Your task to perform on an android device: create a new album in the google photos Image 0: 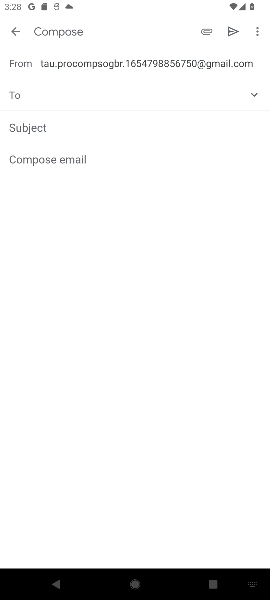
Step 0: click (8, 29)
Your task to perform on an android device: create a new album in the google photos Image 1: 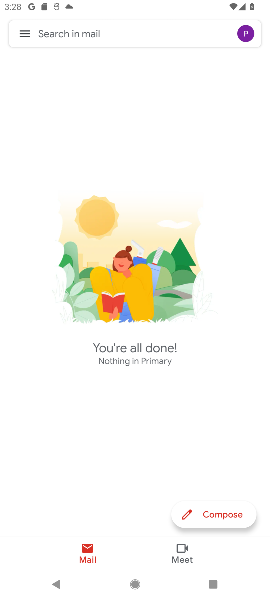
Step 1: press back button
Your task to perform on an android device: create a new album in the google photos Image 2: 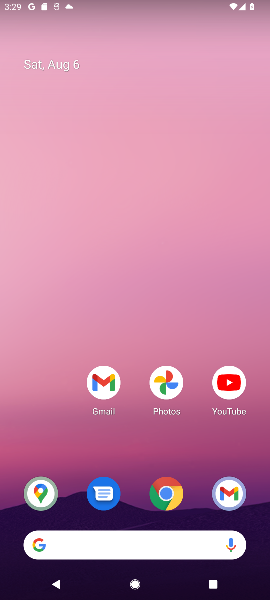
Step 2: drag from (159, 566) to (91, 124)
Your task to perform on an android device: create a new album in the google photos Image 3: 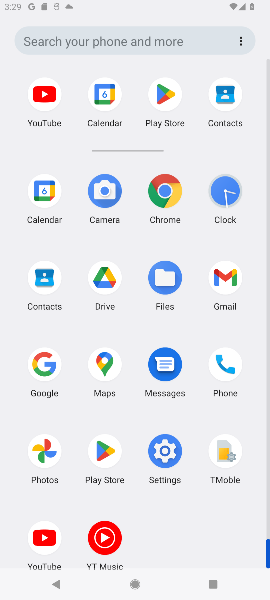
Step 3: drag from (152, 480) to (119, 241)
Your task to perform on an android device: create a new album in the google photos Image 4: 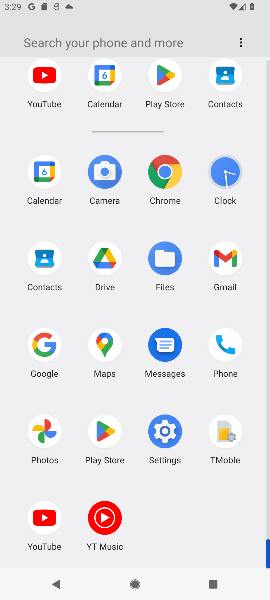
Step 4: click (41, 441)
Your task to perform on an android device: create a new album in the google photos Image 5: 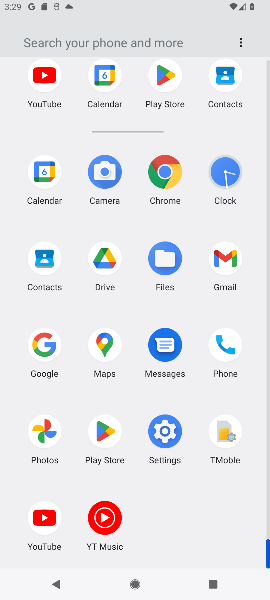
Step 5: click (41, 441)
Your task to perform on an android device: create a new album in the google photos Image 6: 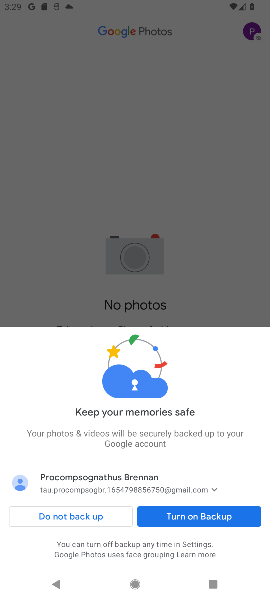
Step 6: click (88, 522)
Your task to perform on an android device: create a new album in the google photos Image 7: 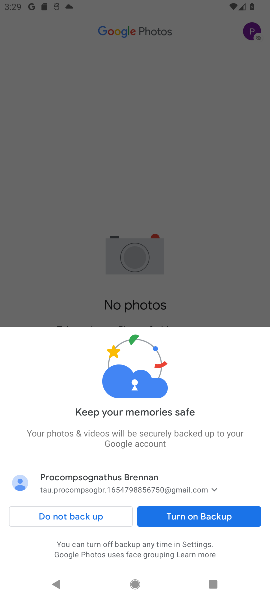
Step 7: click (88, 522)
Your task to perform on an android device: create a new album in the google photos Image 8: 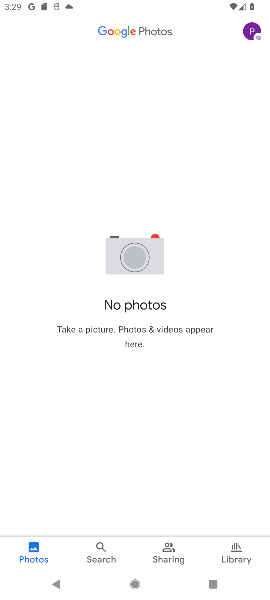
Step 8: click (89, 519)
Your task to perform on an android device: create a new album in the google photos Image 9: 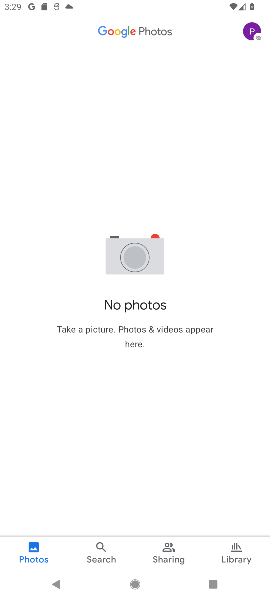
Step 9: click (89, 517)
Your task to perform on an android device: create a new album in the google photos Image 10: 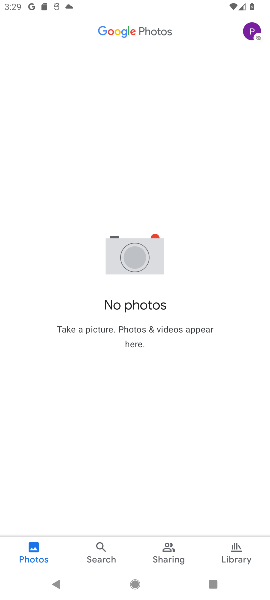
Step 10: click (254, 31)
Your task to perform on an android device: create a new album in the google photos Image 11: 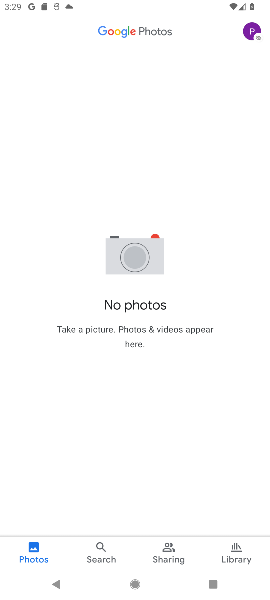
Step 11: click (254, 31)
Your task to perform on an android device: create a new album in the google photos Image 12: 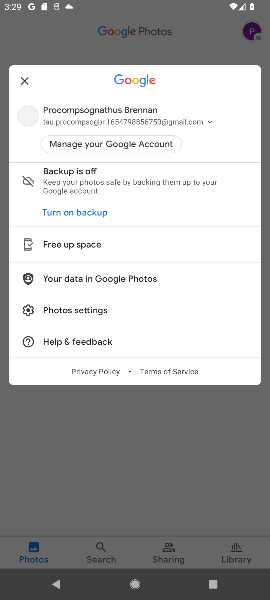
Step 12: click (254, 31)
Your task to perform on an android device: create a new album in the google photos Image 13: 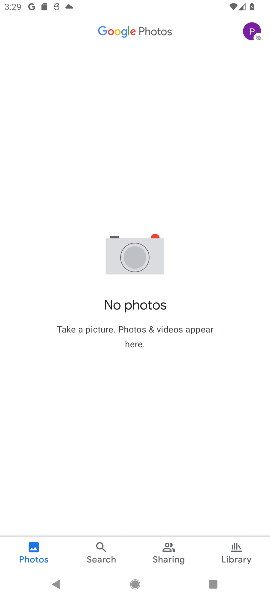
Step 13: drag from (254, 33) to (179, 289)
Your task to perform on an android device: create a new album in the google photos Image 14: 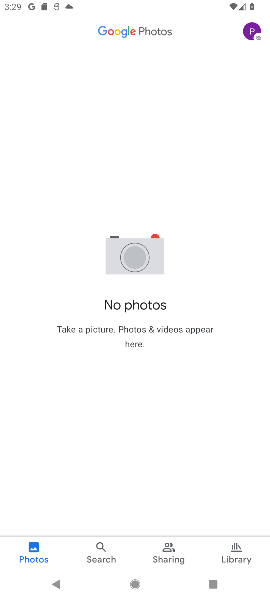
Step 14: drag from (254, 34) to (210, 268)
Your task to perform on an android device: create a new album in the google photos Image 15: 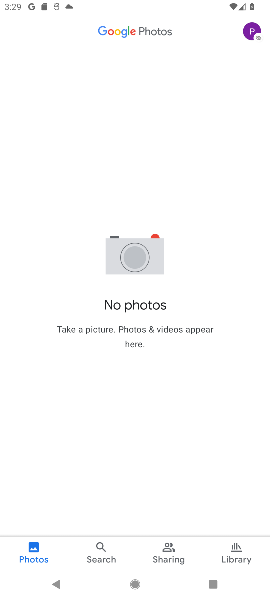
Step 15: click (255, 37)
Your task to perform on an android device: create a new album in the google photos Image 16: 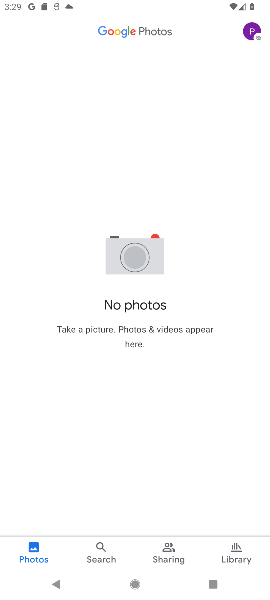
Step 16: click (255, 41)
Your task to perform on an android device: create a new album in the google photos Image 17: 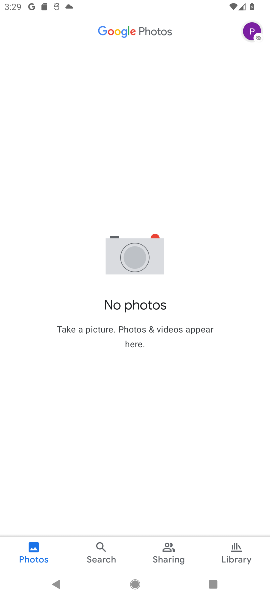
Step 17: click (255, 41)
Your task to perform on an android device: create a new album in the google photos Image 18: 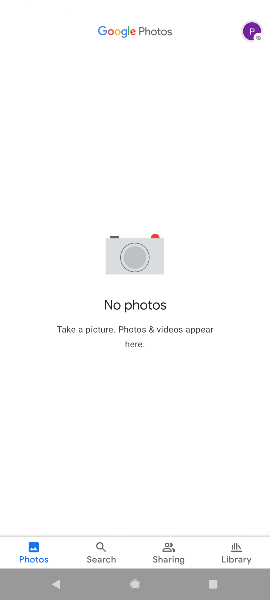
Step 18: click (259, 28)
Your task to perform on an android device: create a new album in the google photos Image 19: 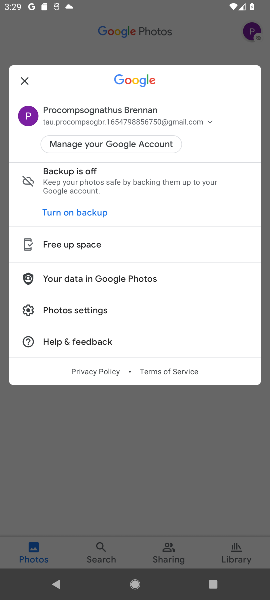
Step 19: click (259, 28)
Your task to perform on an android device: create a new album in the google photos Image 20: 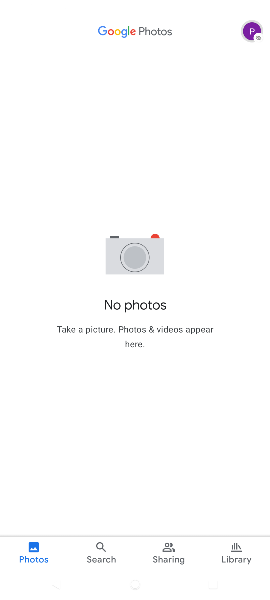
Step 20: click (259, 28)
Your task to perform on an android device: create a new album in the google photos Image 21: 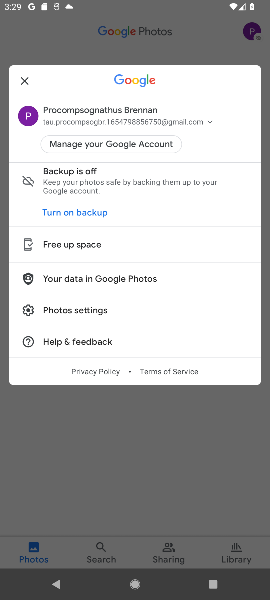
Step 21: click (256, 32)
Your task to perform on an android device: create a new album in the google photos Image 22: 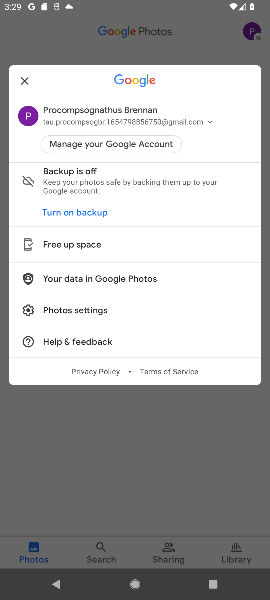
Step 22: click (256, 32)
Your task to perform on an android device: create a new album in the google photos Image 23: 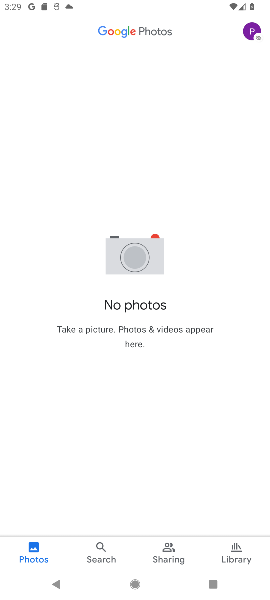
Step 23: click (254, 35)
Your task to perform on an android device: create a new album in the google photos Image 24: 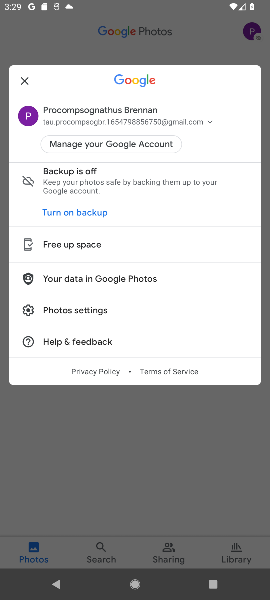
Step 24: click (64, 306)
Your task to perform on an android device: create a new album in the google photos Image 25: 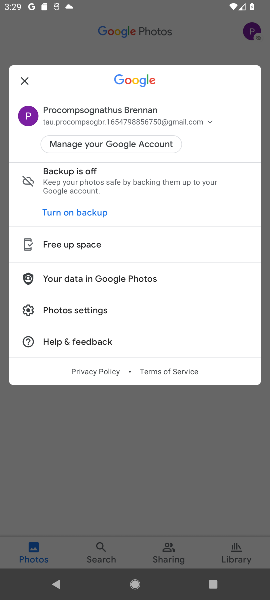
Step 25: click (64, 306)
Your task to perform on an android device: create a new album in the google photos Image 26: 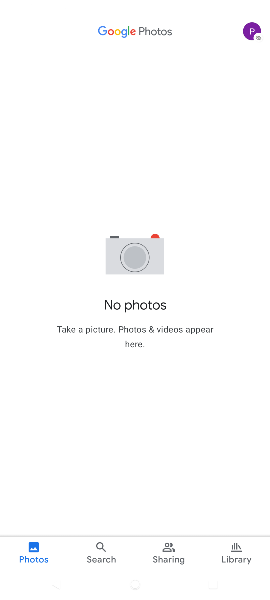
Step 26: click (64, 306)
Your task to perform on an android device: create a new album in the google photos Image 27: 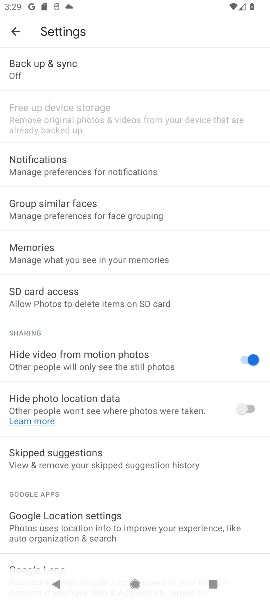
Step 27: click (0, 24)
Your task to perform on an android device: create a new album in the google photos Image 28: 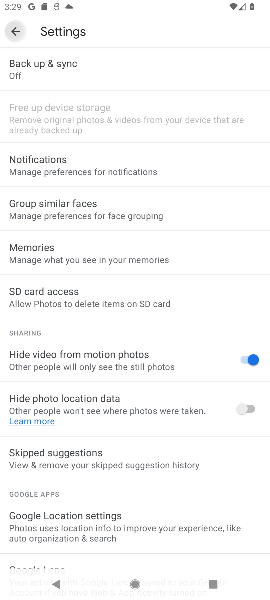
Step 28: click (9, 28)
Your task to perform on an android device: create a new album in the google photos Image 29: 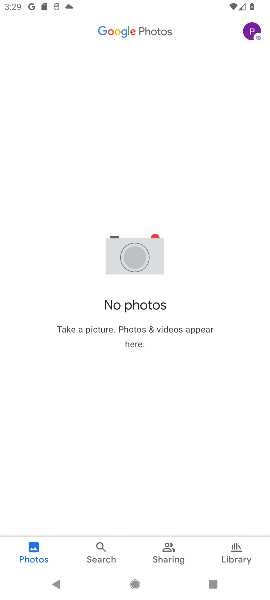
Step 29: task complete